Your task to perform on an android device: open the mobile data screen to see how much data has been used Image 0: 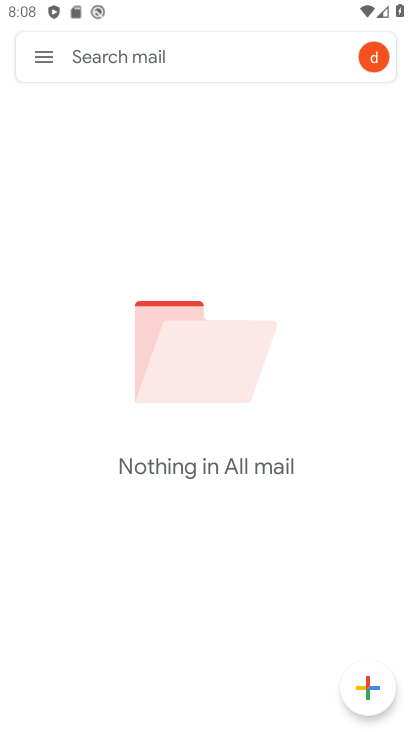
Step 0: press home button
Your task to perform on an android device: open the mobile data screen to see how much data has been used Image 1: 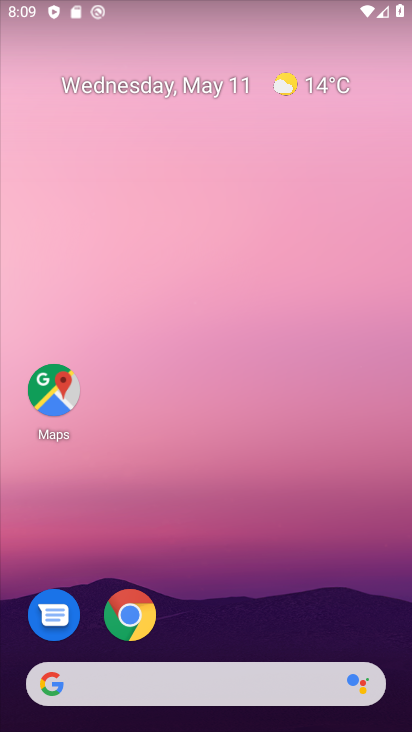
Step 1: drag from (362, 4) to (277, 471)
Your task to perform on an android device: open the mobile data screen to see how much data has been used Image 2: 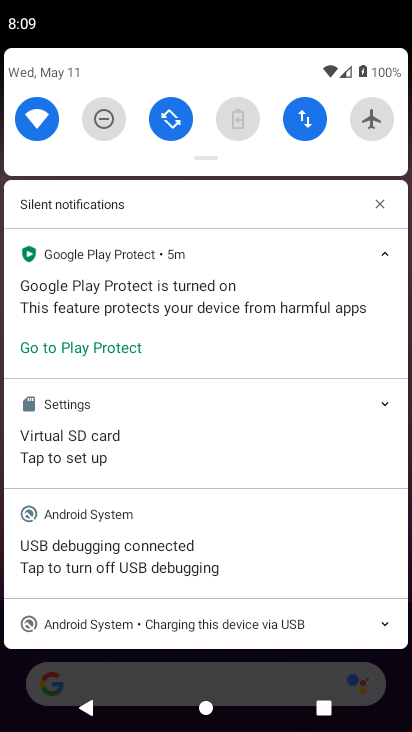
Step 2: click (313, 128)
Your task to perform on an android device: open the mobile data screen to see how much data has been used Image 3: 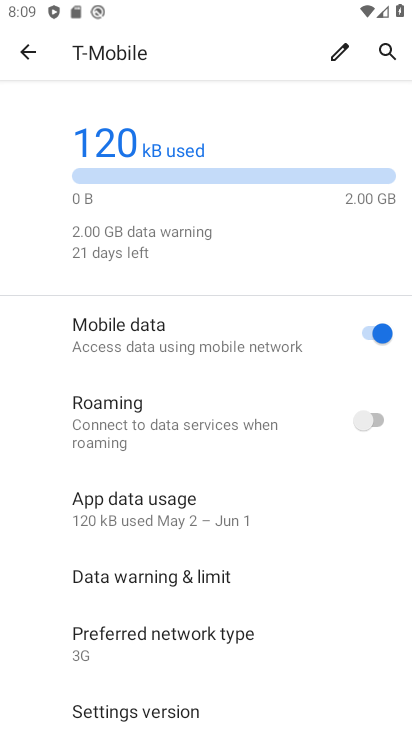
Step 3: task complete